Your task to perform on an android device: Search for vegetarian restaurants on Maps Image 0: 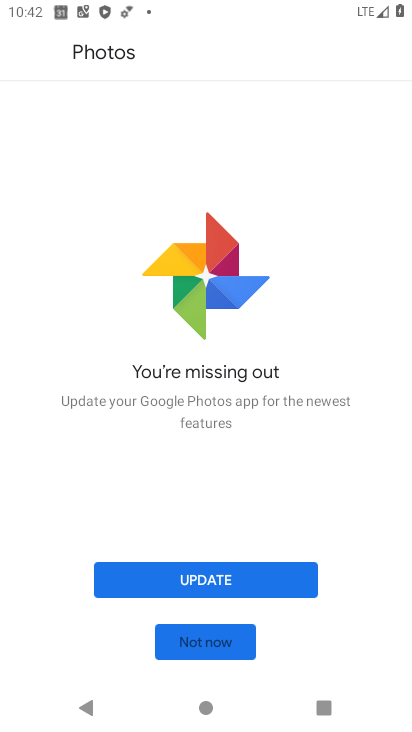
Step 0: press back button
Your task to perform on an android device: Search for vegetarian restaurants on Maps Image 1: 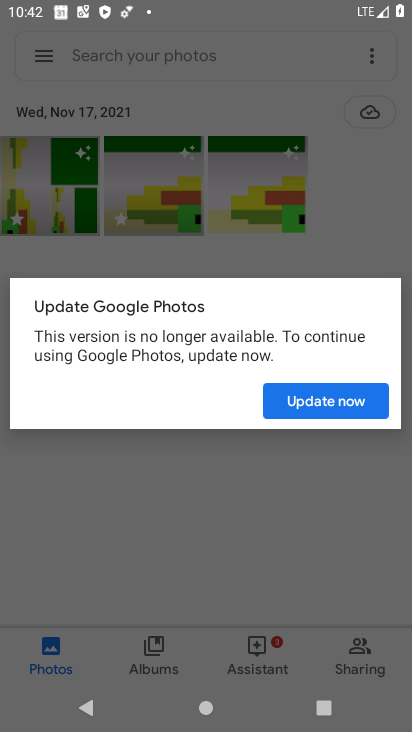
Step 1: press back button
Your task to perform on an android device: Search for vegetarian restaurants on Maps Image 2: 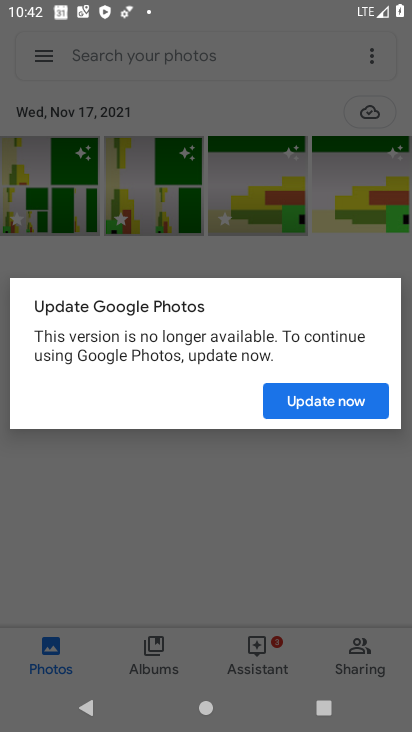
Step 2: press home button
Your task to perform on an android device: Search for vegetarian restaurants on Maps Image 3: 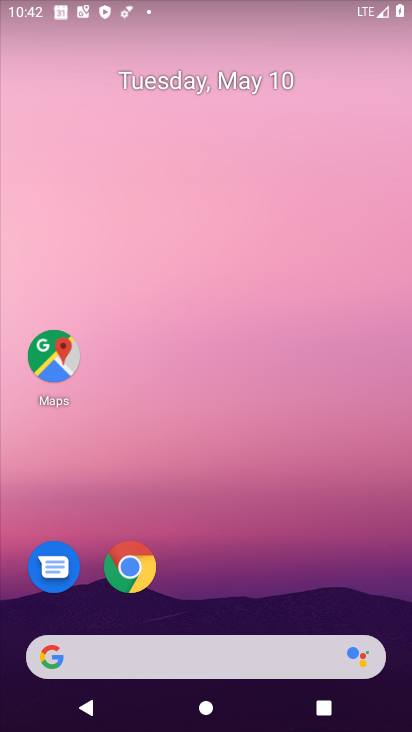
Step 3: click (49, 353)
Your task to perform on an android device: Search for vegetarian restaurants on Maps Image 4: 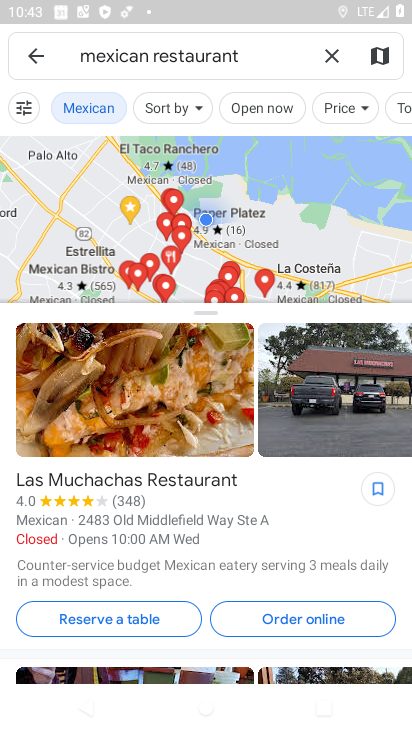
Step 4: click (333, 56)
Your task to perform on an android device: Search for vegetarian restaurants on Maps Image 5: 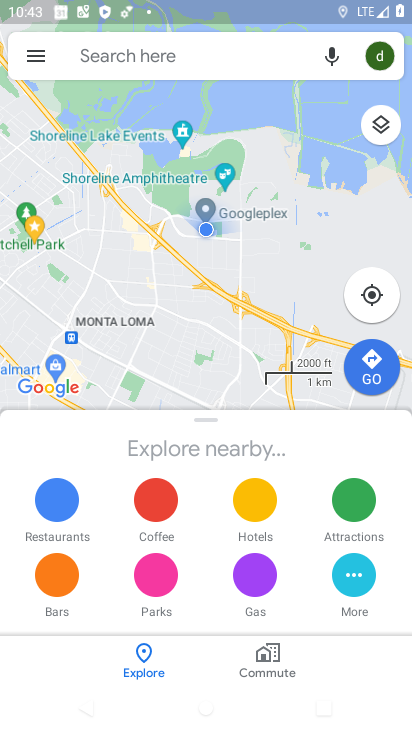
Step 5: click (151, 44)
Your task to perform on an android device: Search for vegetarian restaurants on Maps Image 6: 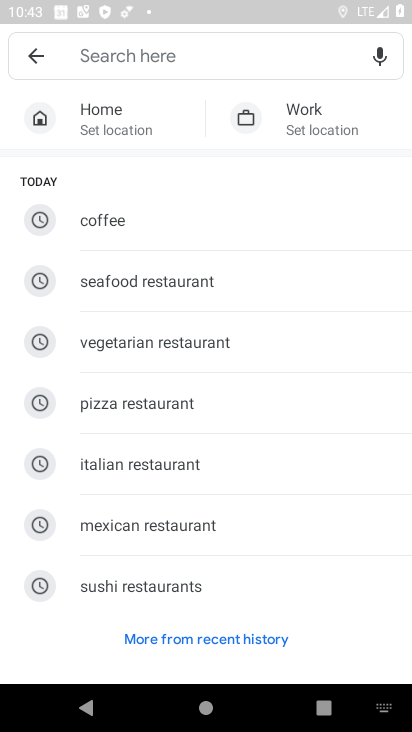
Step 6: click (165, 344)
Your task to perform on an android device: Search for vegetarian restaurants on Maps Image 7: 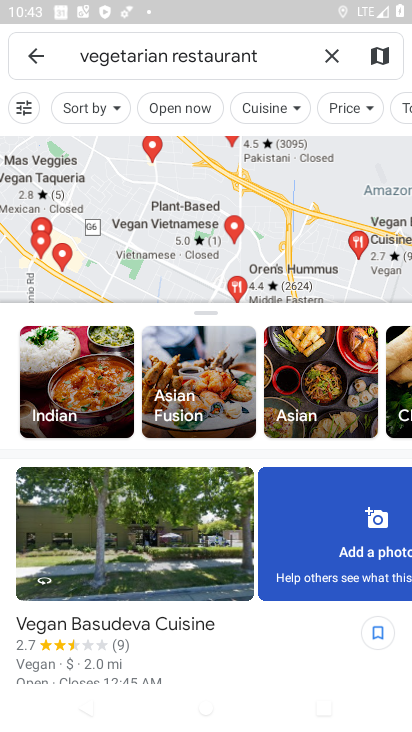
Step 7: task complete